Your task to perform on an android device: Open my contact list Image 0: 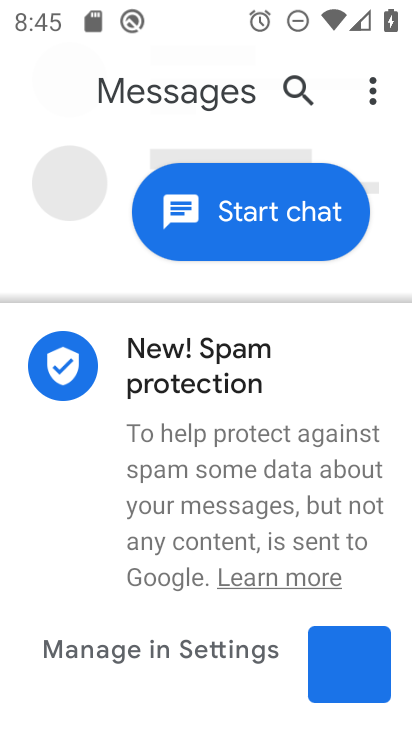
Step 0: press home button
Your task to perform on an android device: Open my contact list Image 1: 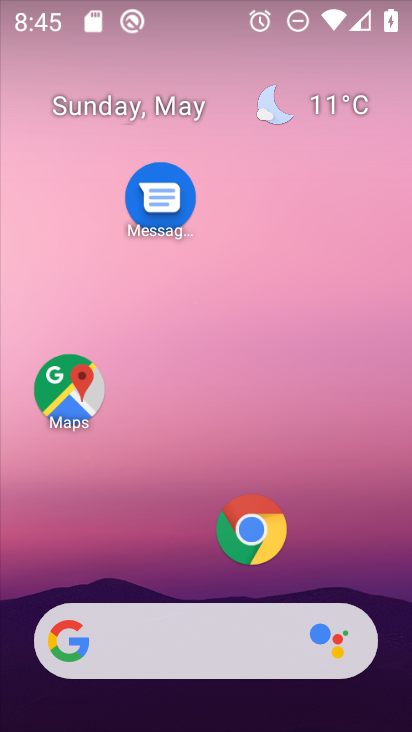
Step 1: click (268, 165)
Your task to perform on an android device: Open my contact list Image 2: 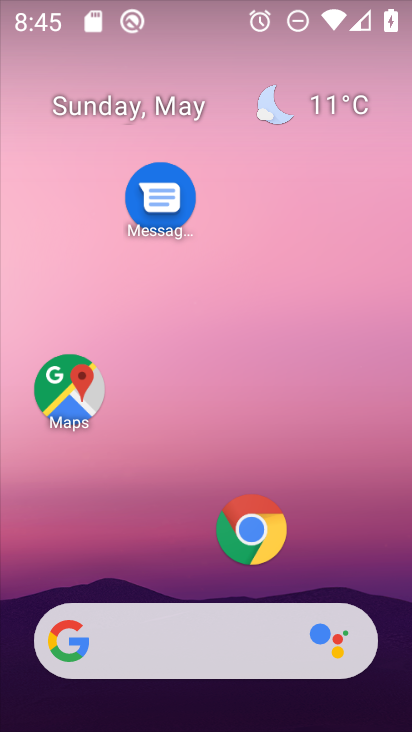
Step 2: drag from (200, 577) to (254, 58)
Your task to perform on an android device: Open my contact list Image 3: 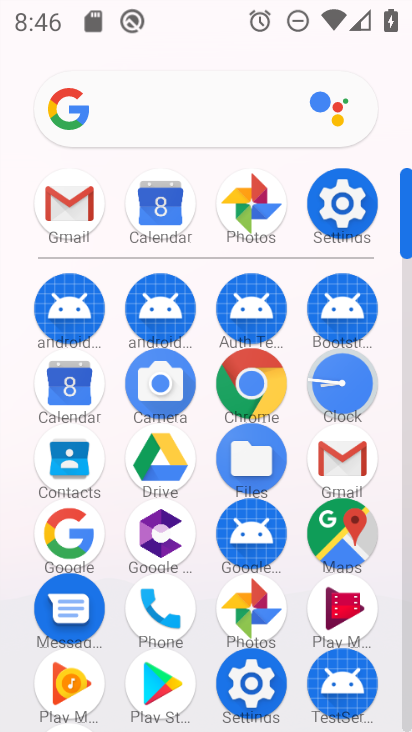
Step 3: click (64, 450)
Your task to perform on an android device: Open my contact list Image 4: 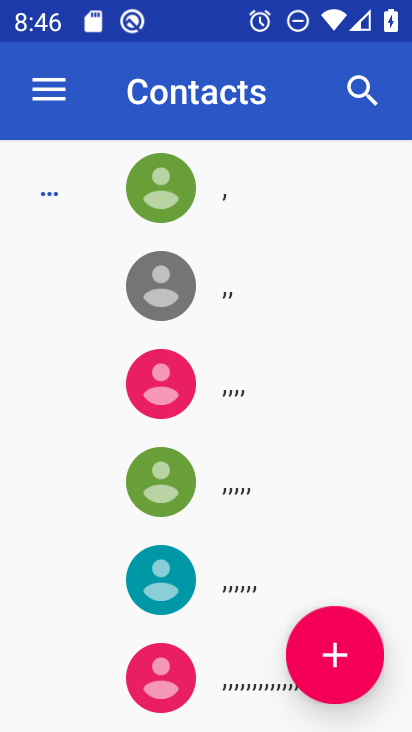
Step 4: task complete